Your task to perform on an android device: Open Youtube and go to "Your channel" Image 0: 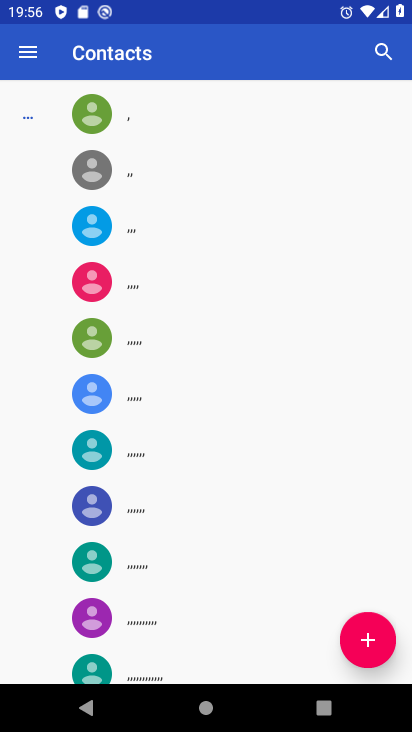
Step 0: press home button
Your task to perform on an android device: Open Youtube and go to "Your channel" Image 1: 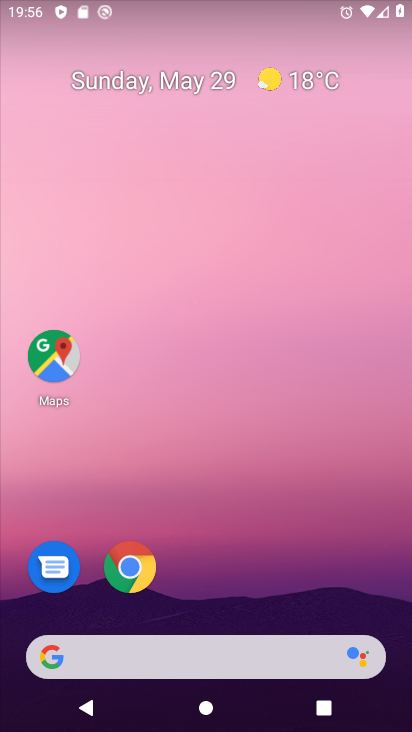
Step 1: drag from (404, 596) to (338, 100)
Your task to perform on an android device: Open Youtube and go to "Your channel" Image 2: 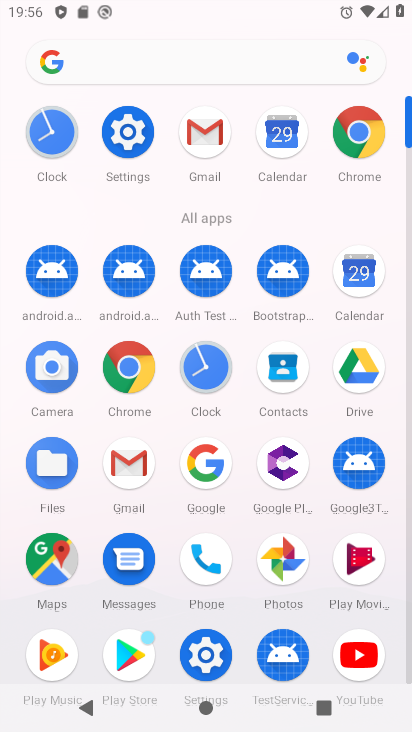
Step 2: click (358, 647)
Your task to perform on an android device: Open Youtube and go to "Your channel" Image 3: 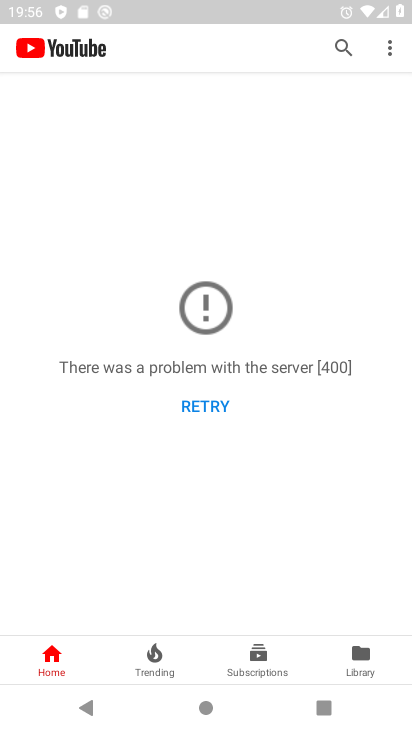
Step 3: click (392, 46)
Your task to perform on an android device: Open Youtube and go to "Your channel" Image 4: 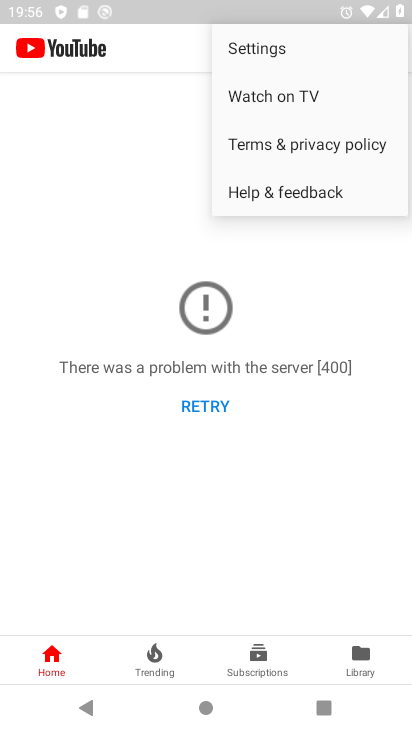
Step 4: click (93, 133)
Your task to perform on an android device: Open Youtube and go to "Your channel" Image 5: 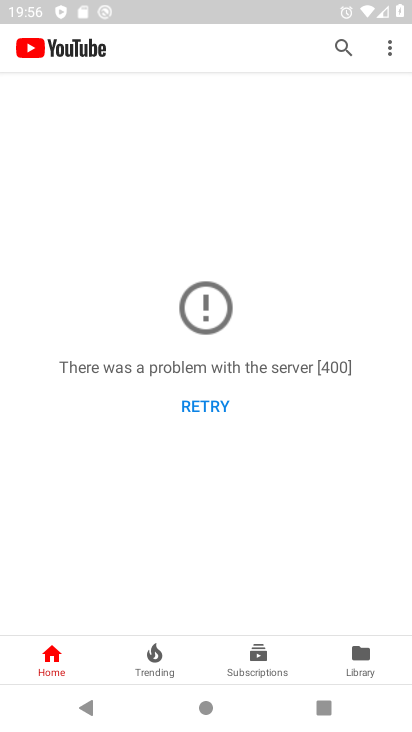
Step 5: task complete